Your task to perform on an android device: Search for pizza restaurants on Maps Image 0: 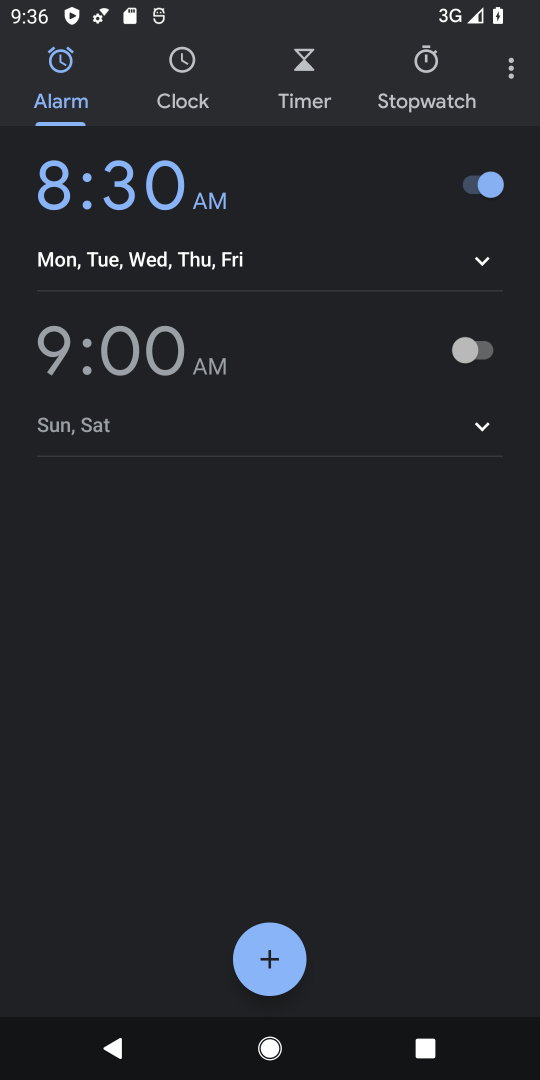
Step 0: click (22, 64)
Your task to perform on an android device: Search for pizza restaurants on Maps Image 1: 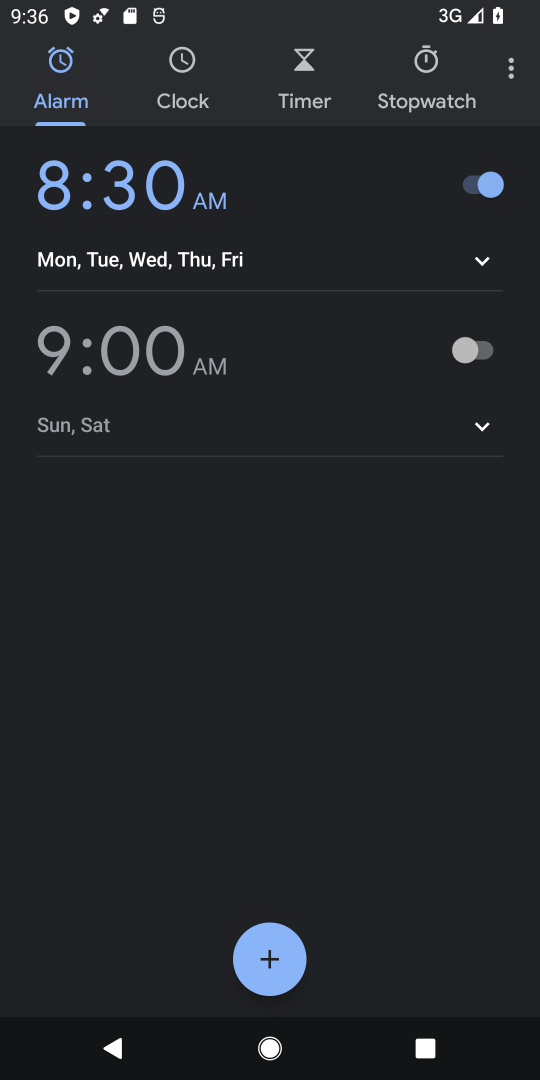
Step 1: press back button
Your task to perform on an android device: Search for pizza restaurants on Maps Image 2: 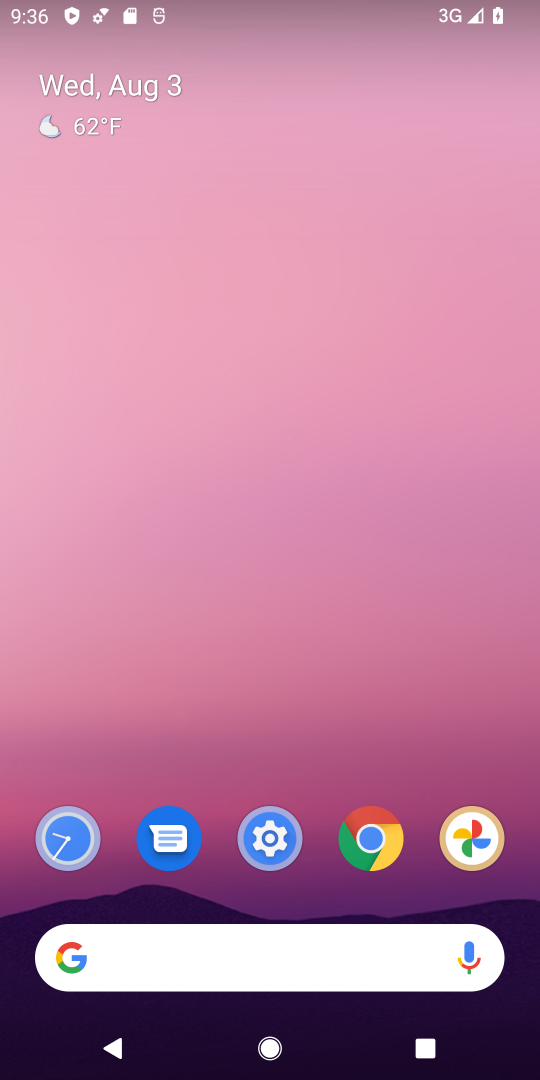
Step 2: drag from (302, 967) to (169, 265)
Your task to perform on an android device: Search for pizza restaurants on Maps Image 3: 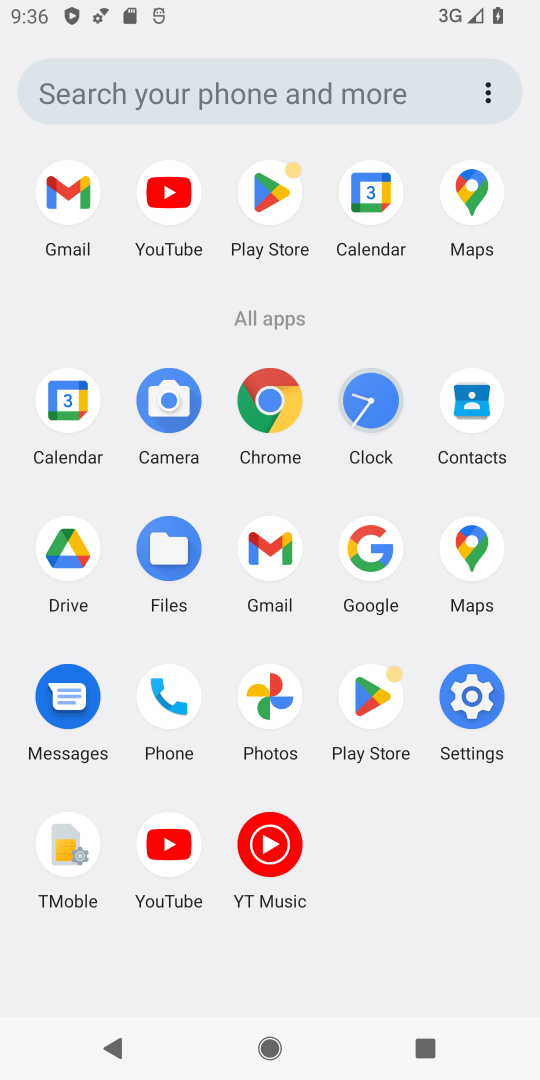
Step 3: click (467, 552)
Your task to perform on an android device: Search for pizza restaurants on Maps Image 4: 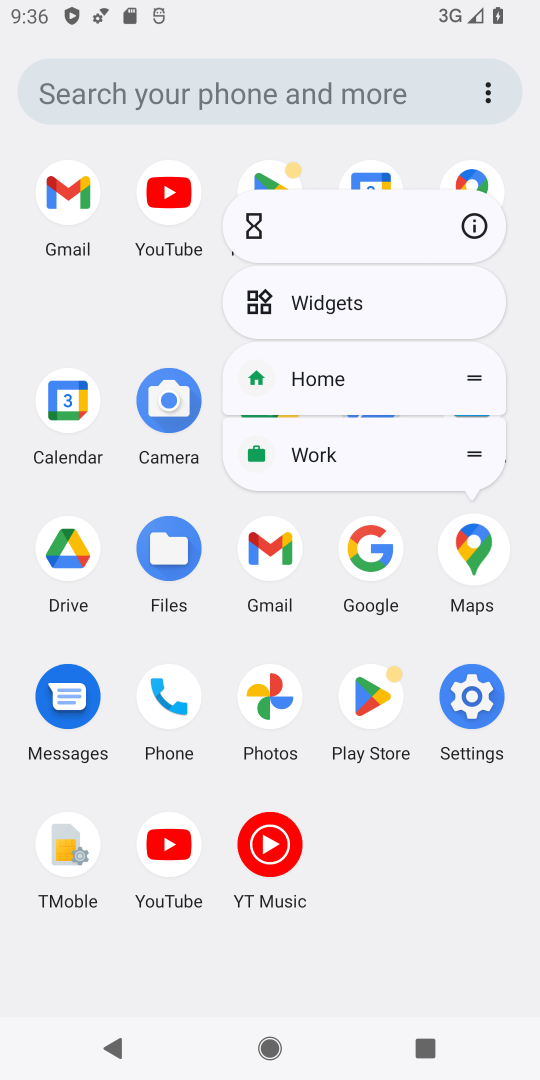
Step 4: click (469, 553)
Your task to perform on an android device: Search for pizza restaurants on Maps Image 5: 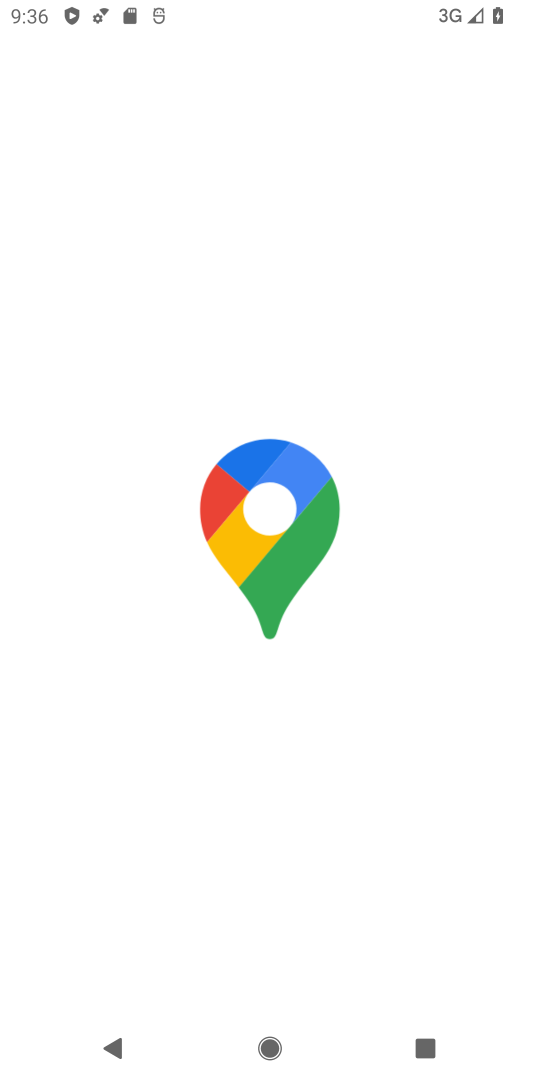
Step 5: click (470, 554)
Your task to perform on an android device: Search for pizza restaurants on Maps Image 6: 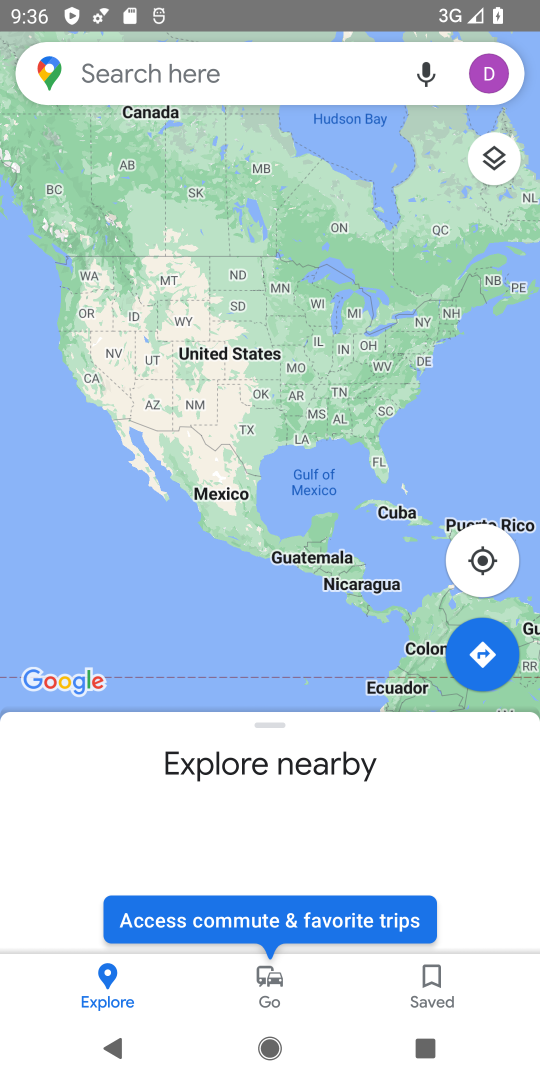
Step 6: click (114, 92)
Your task to perform on an android device: Search for pizza restaurants on Maps Image 7: 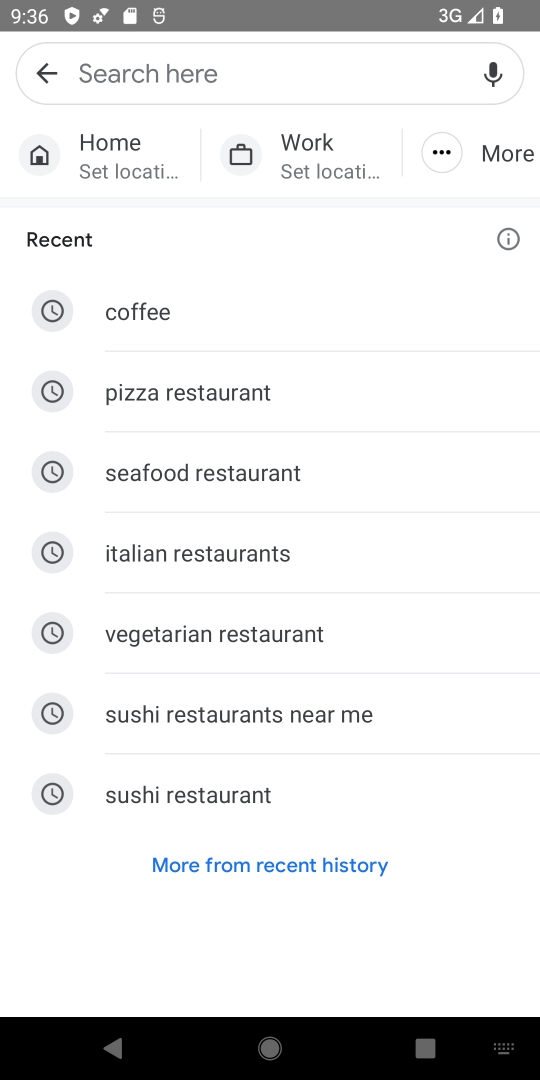
Step 7: click (150, 388)
Your task to perform on an android device: Search for pizza restaurants on Maps Image 8: 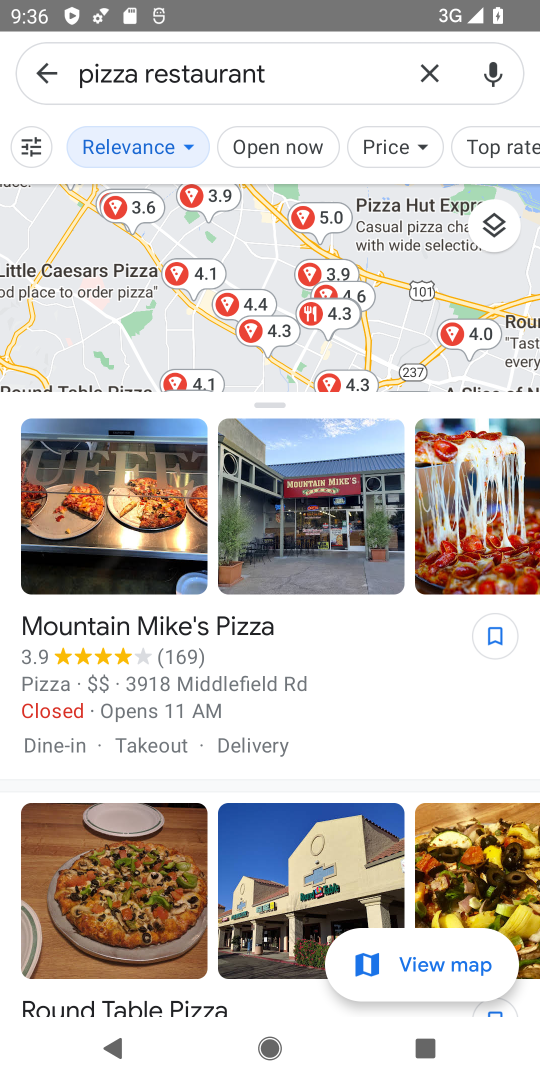
Step 8: click (299, 86)
Your task to perform on an android device: Search for pizza restaurants on Maps Image 9: 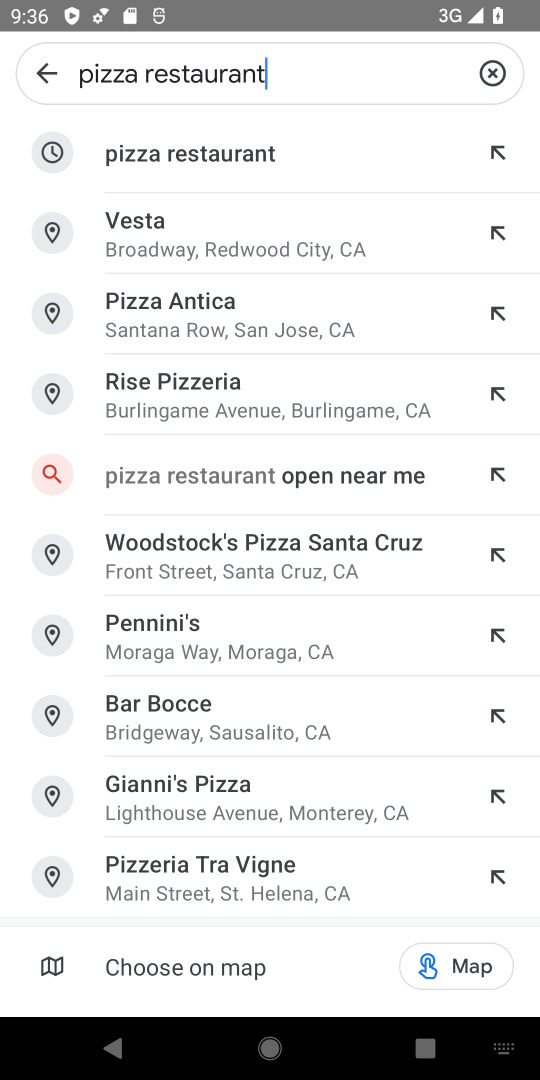
Step 9: click (221, 161)
Your task to perform on an android device: Search for pizza restaurants on Maps Image 10: 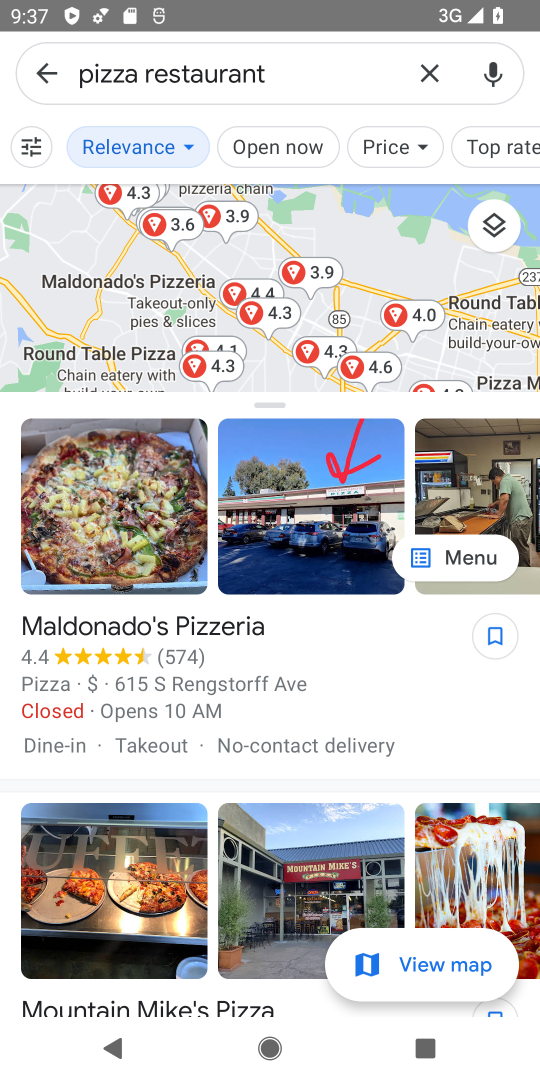
Step 10: click (281, 81)
Your task to perform on an android device: Search for pizza restaurants on Maps Image 11: 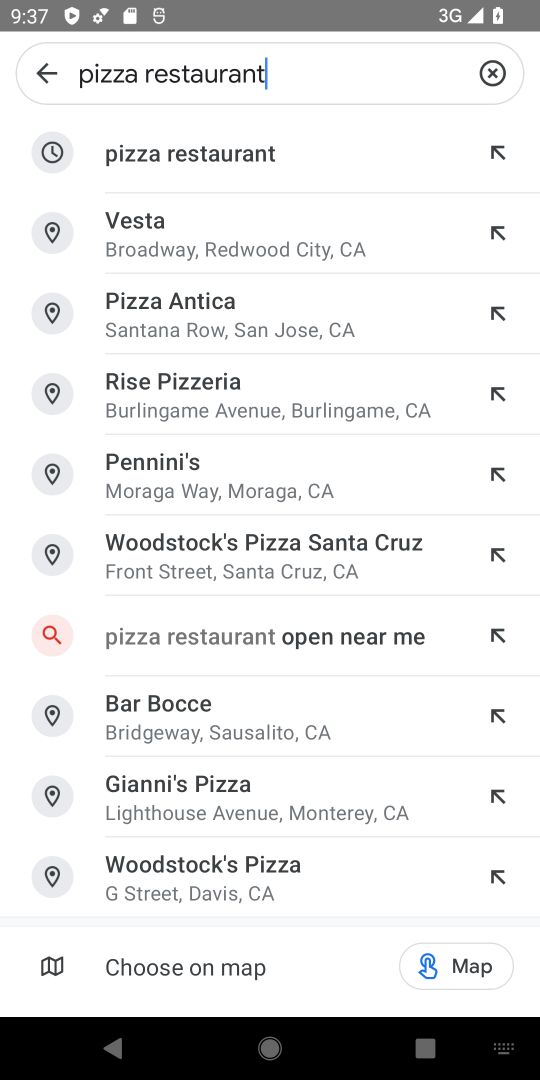
Step 11: task complete